Your task to perform on an android device: Set the phone to "Do not disturb". Image 0: 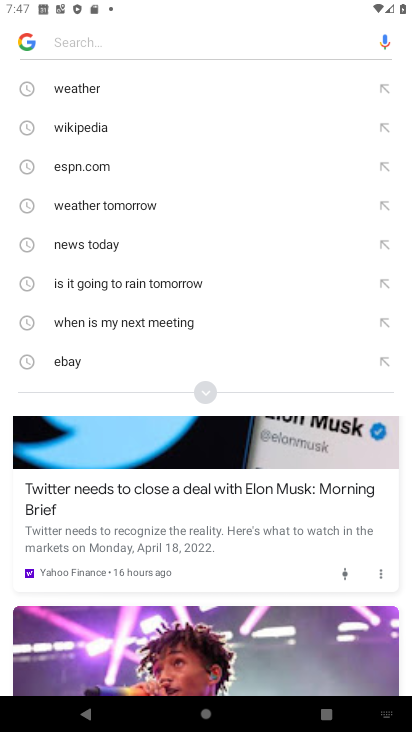
Step 0: press home button
Your task to perform on an android device: Set the phone to "Do not disturb". Image 1: 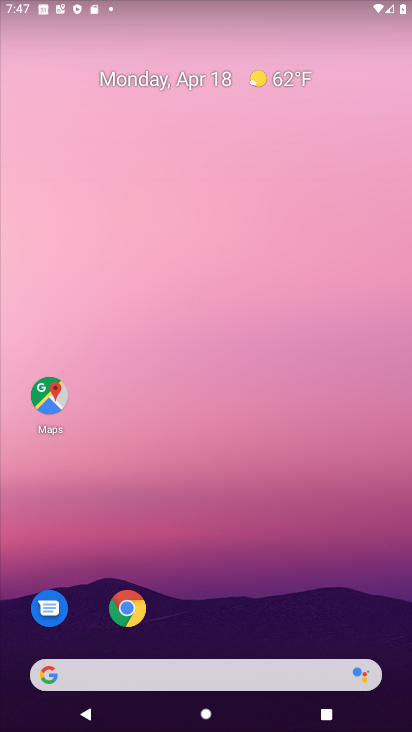
Step 1: drag from (205, 588) to (258, 44)
Your task to perform on an android device: Set the phone to "Do not disturb". Image 2: 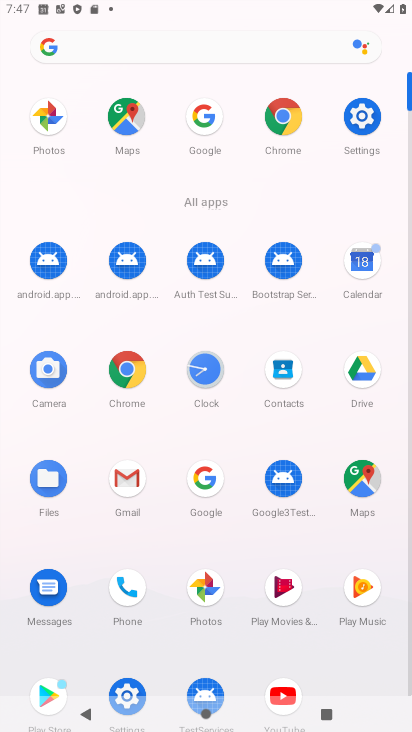
Step 2: click (364, 117)
Your task to perform on an android device: Set the phone to "Do not disturb". Image 3: 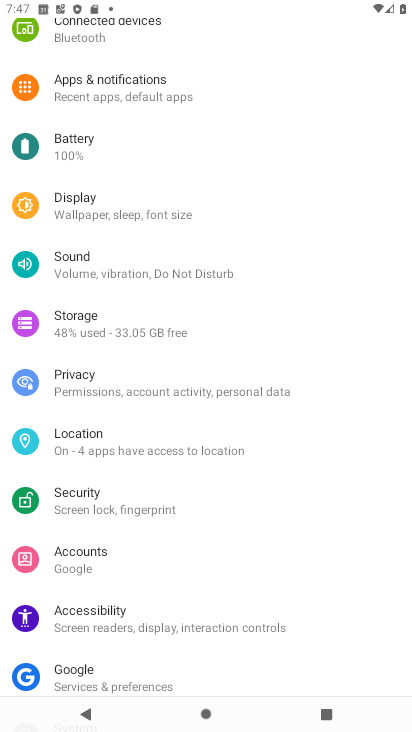
Step 3: click (183, 272)
Your task to perform on an android device: Set the phone to "Do not disturb". Image 4: 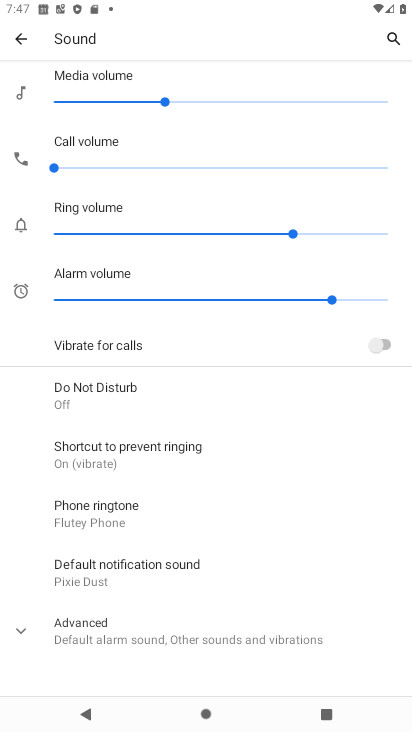
Step 4: click (126, 393)
Your task to perform on an android device: Set the phone to "Do not disturb". Image 5: 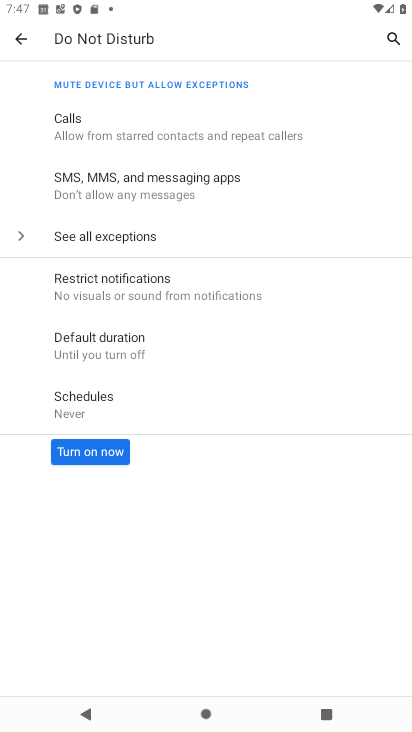
Step 5: click (95, 454)
Your task to perform on an android device: Set the phone to "Do not disturb". Image 6: 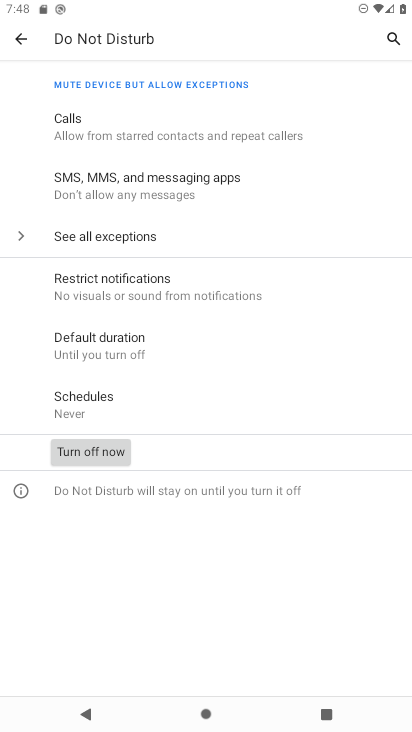
Step 6: task complete